Your task to perform on an android device: open wifi settings Image 0: 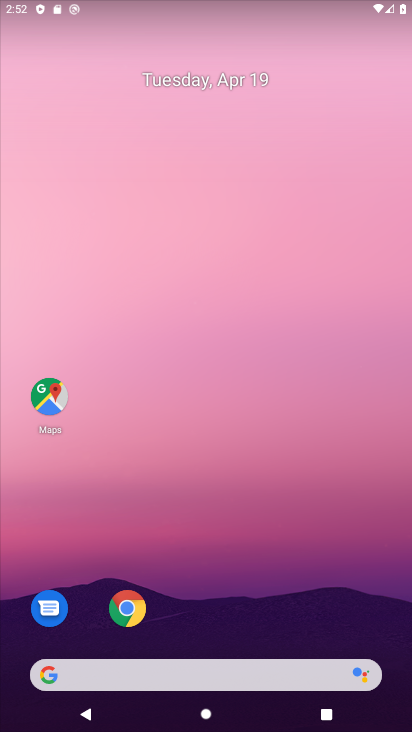
Step 0: drag from (307, 444) to (392, 60)
Your task to perform on an android device: open wifi settings Image 1: 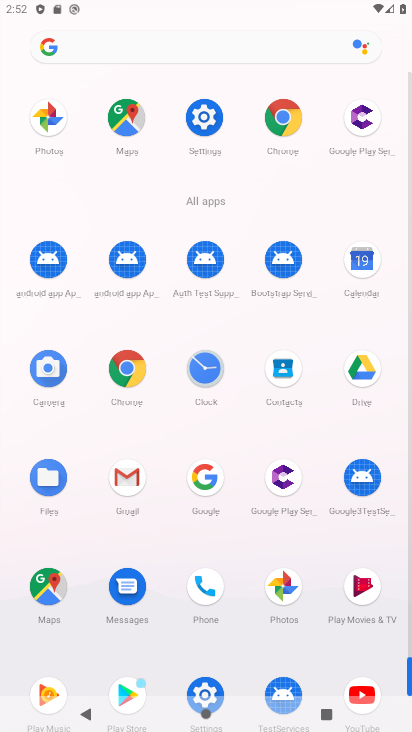
Step 1: click (223, 114)
Your task to perform on an android device: open wifi settings Image 2: 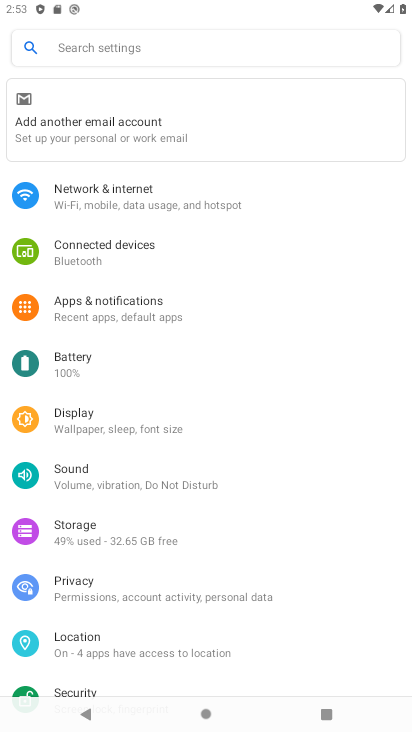
Step 2: drag from (112, 509) to (179, 187)
Your task to perform on an android device: open wifi settings Image 3: 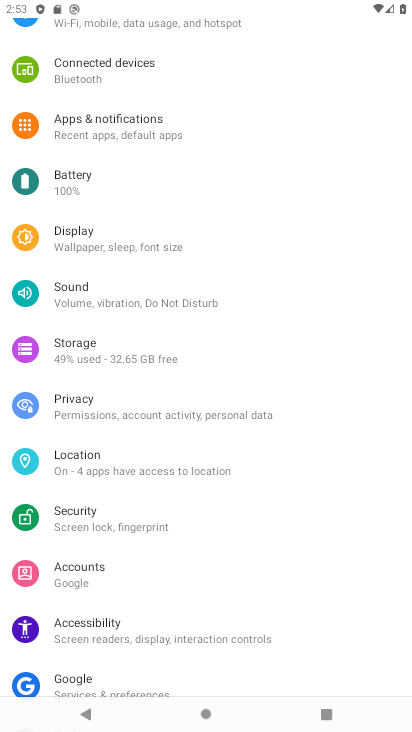
Step 3: drag from (248, 247) to (224, 513)
Your task to perform on an android device: open wifi settings Image 4: 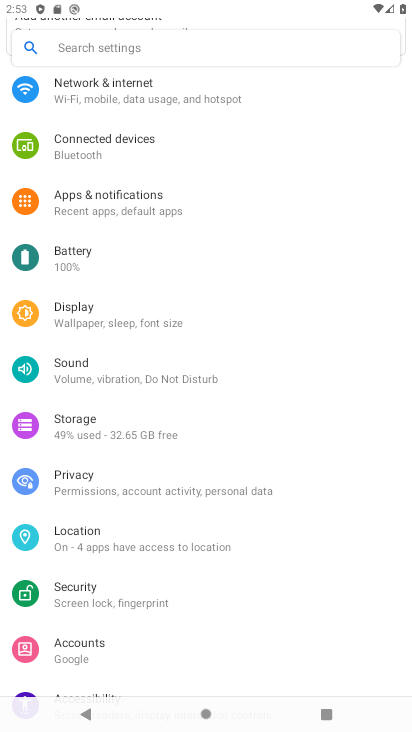
Step 4: drag from (40, 328) to (109, 95)
Your task to perform on an android device: open wifi settings Image 5: 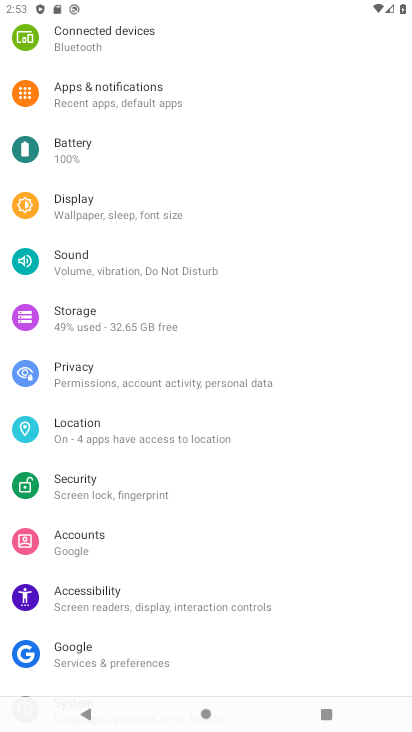
Step 5: drag from (254, 240) to (196, 589)
Your task to perform on an android device: open wifi settings Image 6: 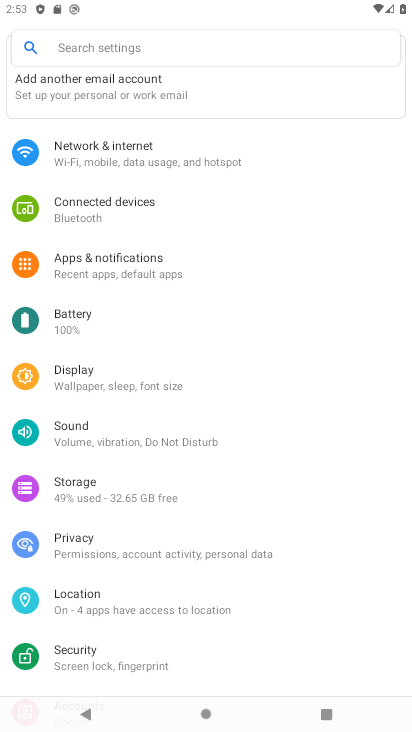
Step 6: drag from (250, 157) to (189, 559)
Your task to perform on an android device: open wifi settings Image 7: 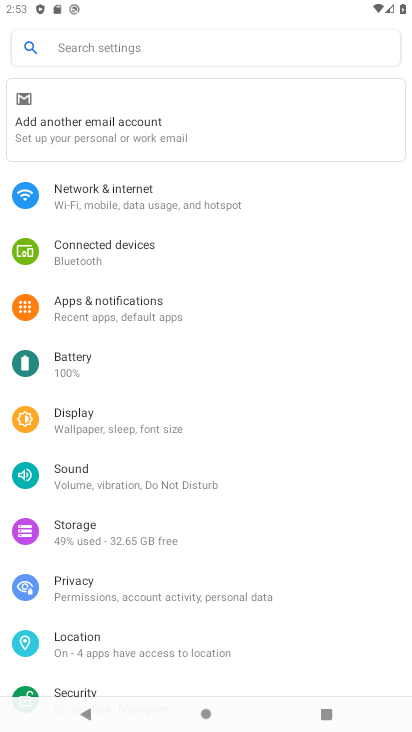
Step 7: click (143, 204)
Your task to perform on an android device: open wifi settings Image 8: 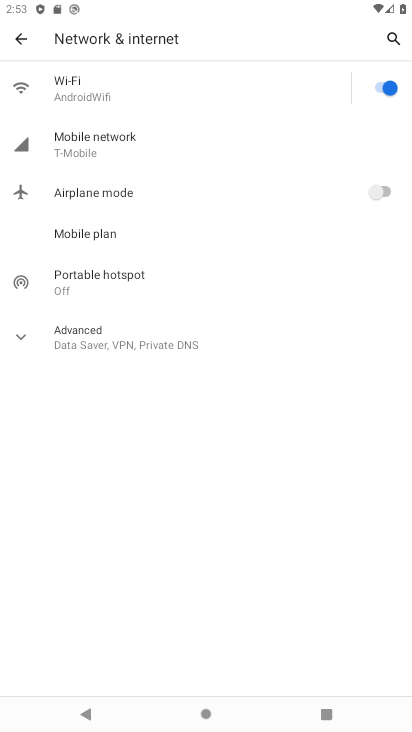
Step 8: click (54, 83)
Your task to perform on an android device: open wifi settings Image 9: 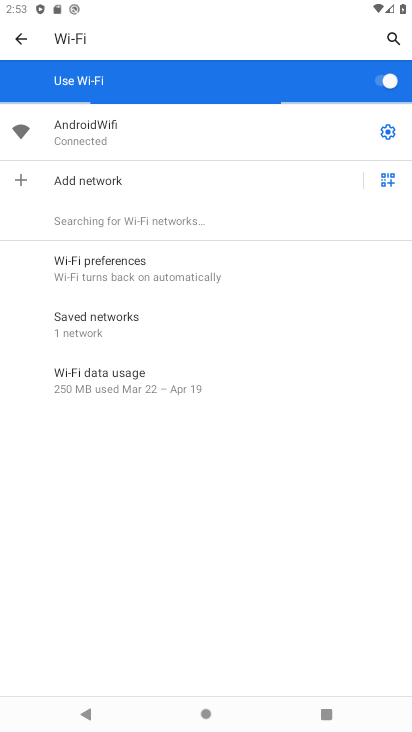
Step 9: task complete